Your task to perform on an android device: Open location settings Image 0: 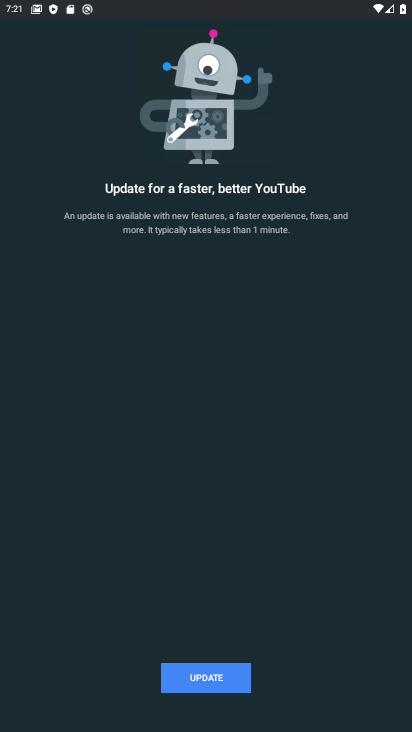
Step 0: press home button
Your task to perform on an android device: Open location settings Image 1: 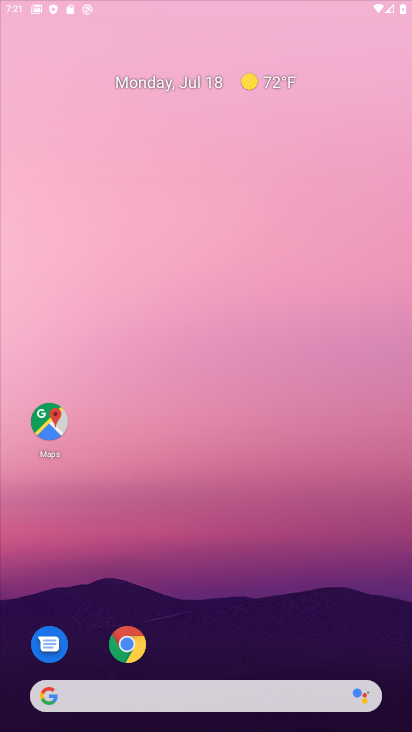
Step 1: drag from (367, 641) to (309, 4)
Your task to perform on an android device: Open location settings Image 2: 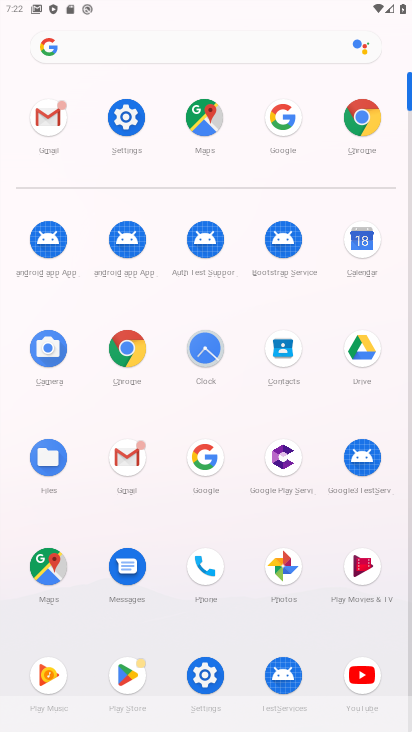
Step 2: click (210, 683)
Your task to perform on an android device: Open location settings Image 3: 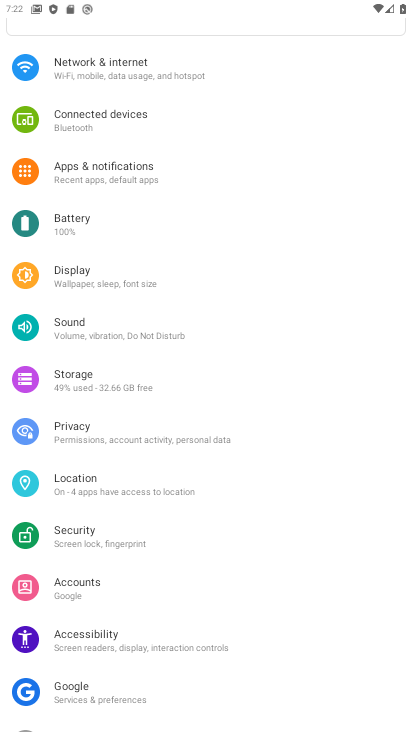
Step 3: click (85, 488)
Your task to perform on an android device: Open location settings Image 4: 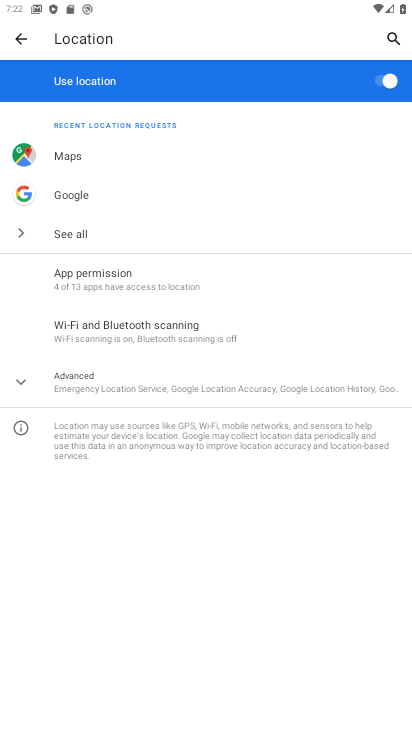
Step 4: task complete